Your task to perform on an android device: Open the Play Movies app and select the watchlist tab. Image 0: 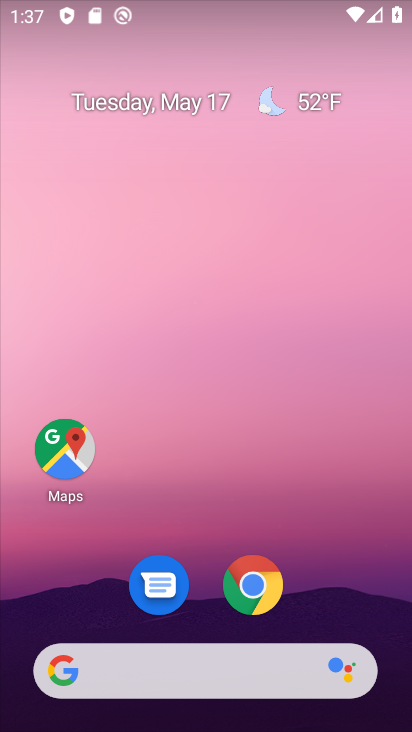
Step 0: drag from (340, 436) to (287, 46)
Your task to perform on an android device: Open the Play Movies app and select the watchlist tab. Image 1: 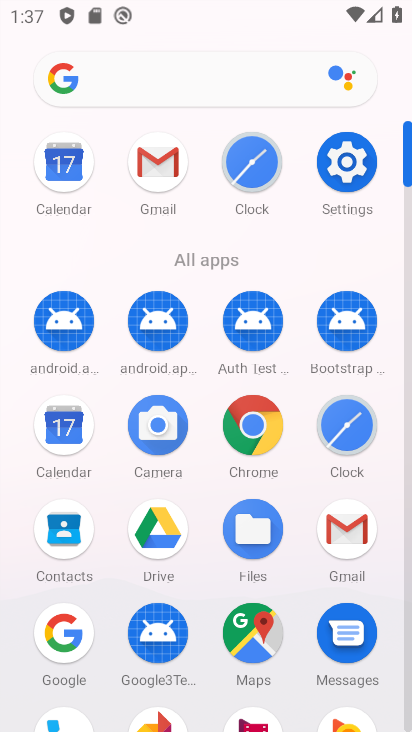
Step 1: drag from (290, 461) to (304, 236)
Your task to perform on an android device: Open the Play Movies app and select the watchlist tab. Image 2: 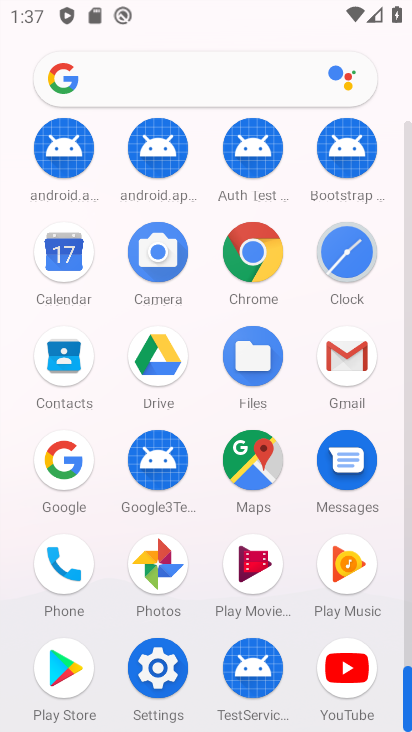
Step 2: click (262, 560)
Your task to perform on an android device: Open the Play Movies app and select the watchlist tab. Image 3: 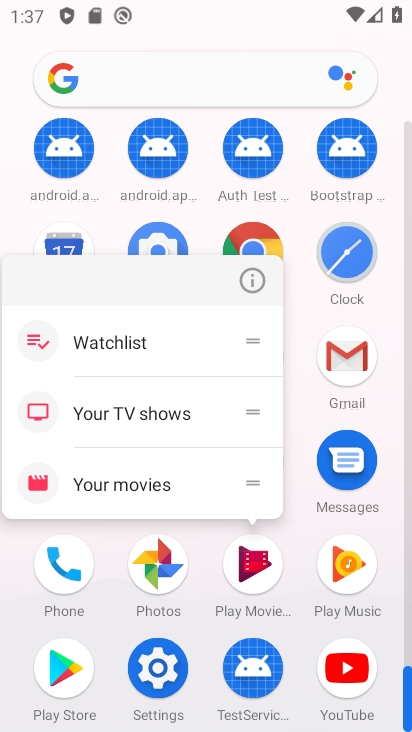
Step 3: click (254, 563)
Your task to perform on an android device: Open the Play Movies app and select the watchlist tab. Image 4: 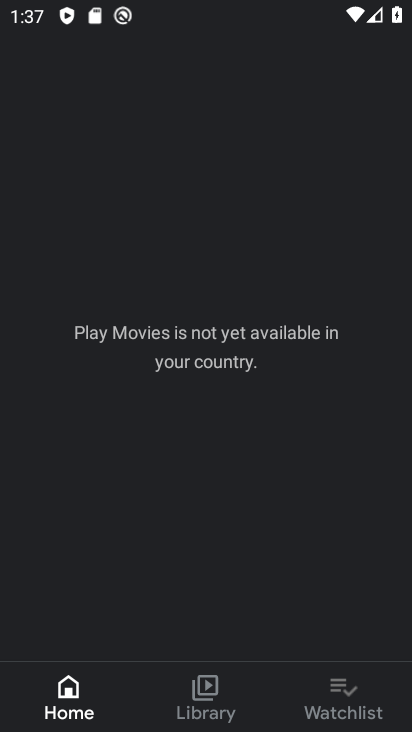
Step 4: click (343, 699)
Your task to perform on an android device: Open the Play Movies app and select the watchlist tab. Image 5: 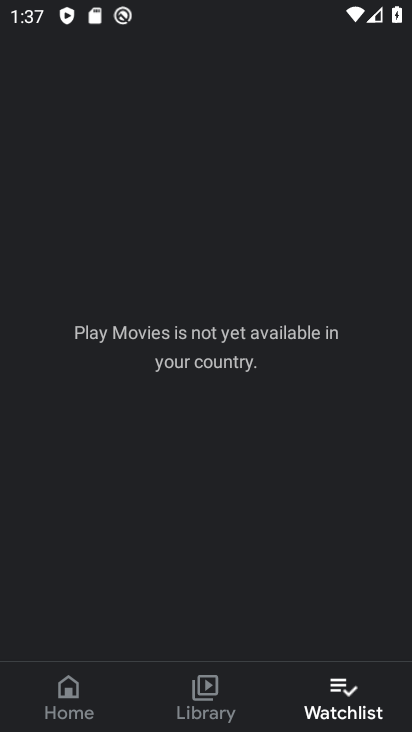
Step 5: task complete